Your task to perform on an android device: Open the phone app and click the voicemail tab. Image 0: 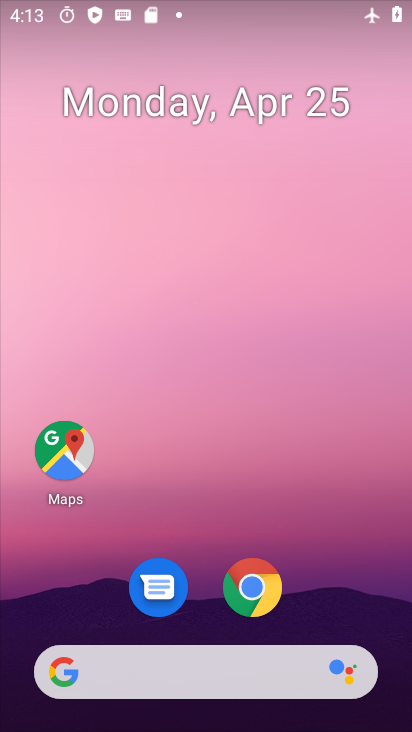
Step 0: drag from (318, 455) to (352, 113)
Your task to perform on an android device: Open the phone app and click the voicemail tab. Image 1: 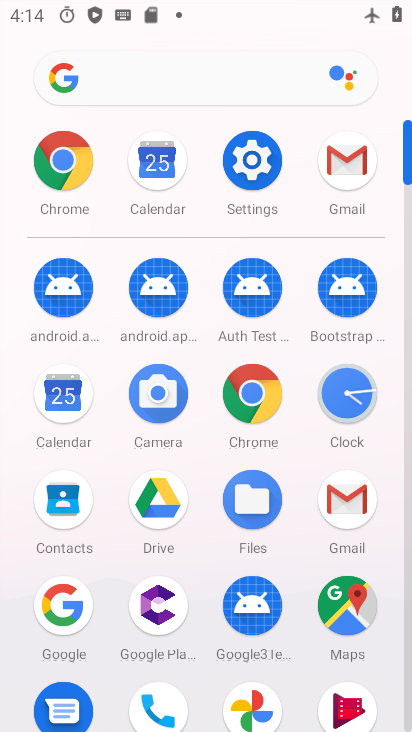
Step 1: click (166, 709)
Your task to perform on an android device: Open the phone app and click the voicemail tab. Image 2: 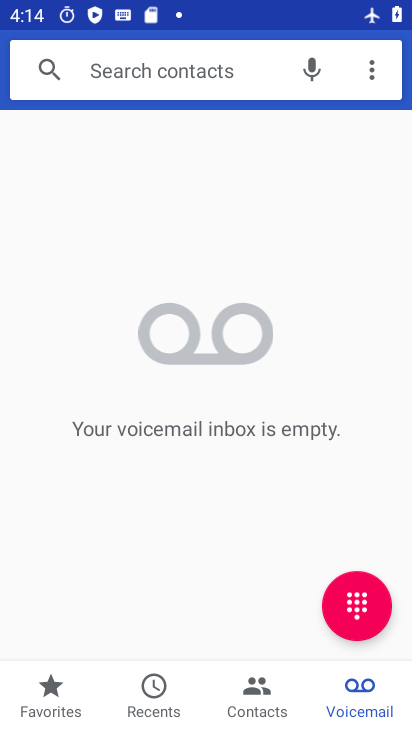
Step 2: task complete